Your task to perform on an android device: Open eBay Image 0: 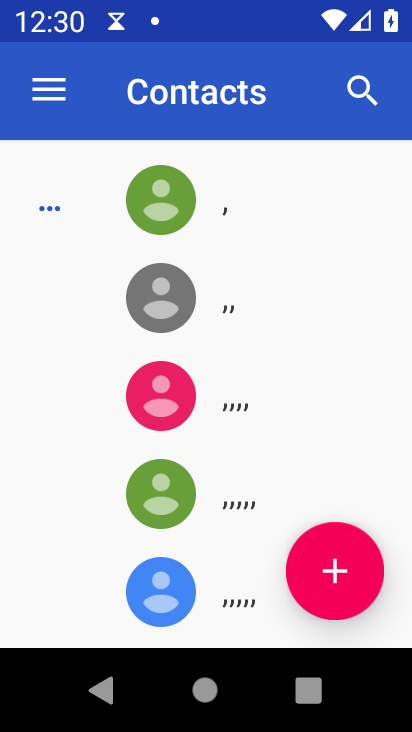
Step 0: press home button
Your task to perform on an android device: Open eBay Image 1: 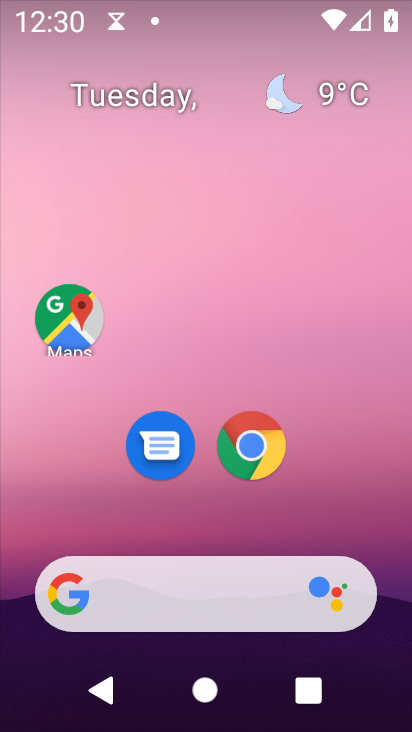
Step 1: drag from (303, 586) to (301, 40)
Your task to perform on an android device: Open eBay Image 2: 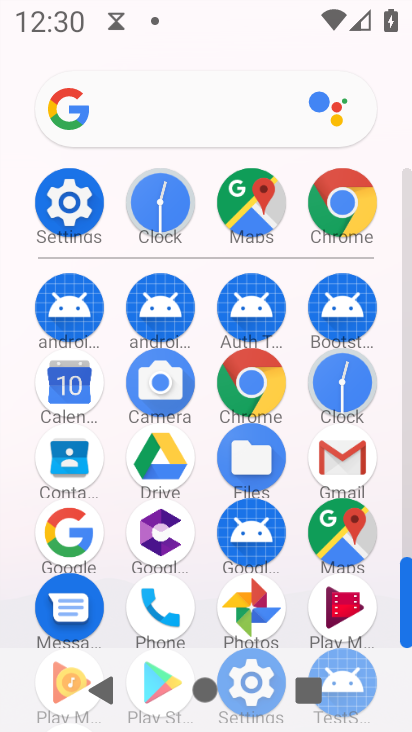
Step 2: click (252, 395)
Your task to perform on an android device: Open eBay Image 3: 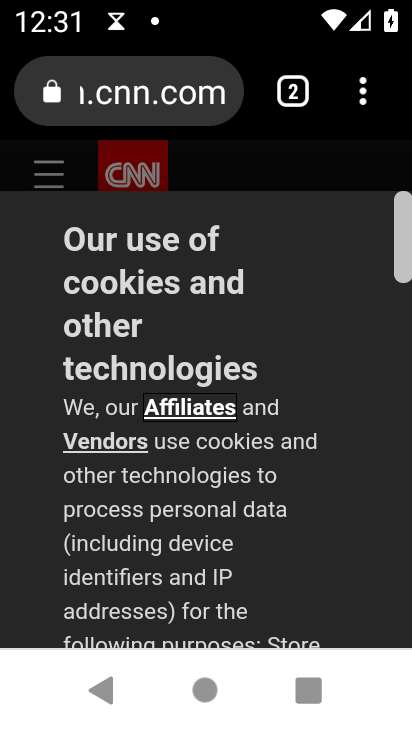
Step 3: click (203, 81)
Your task to perform on an android device: Open eBay Image 4: 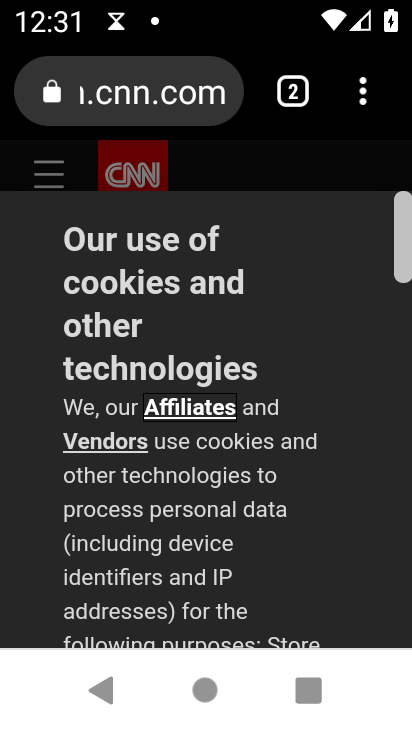
Step 4: click (203, 81)
Your task to perform on an android device: Open eBay Image 5: 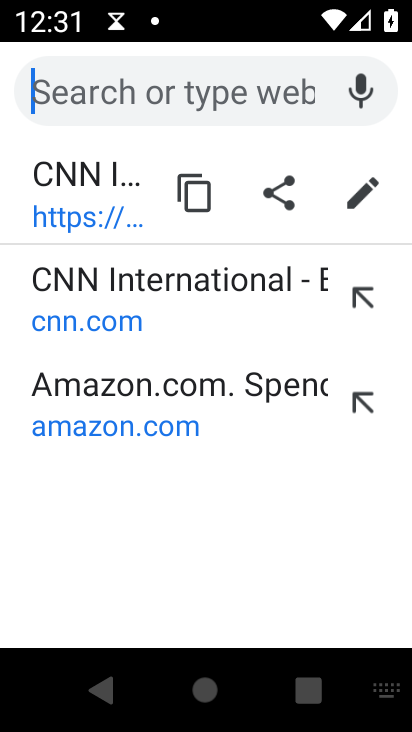
Step 5: type "ebay"
Your task to perform on an android device: Open eBay Image 6: 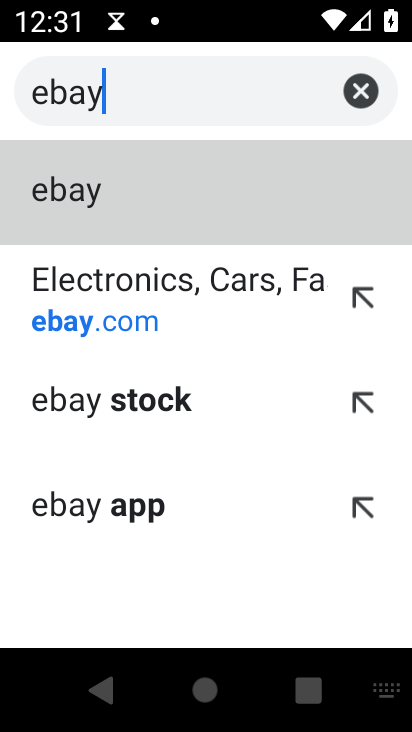
Step 6: click (138, 280)
Your task to perform on an android device: Open eBay Image 7: 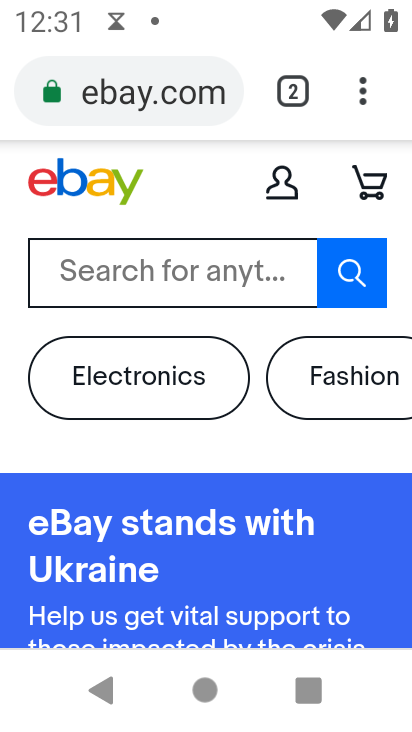
Step 7: task complete